Your task to perform on an android device: toggle javascript in the chrome app Image 0: 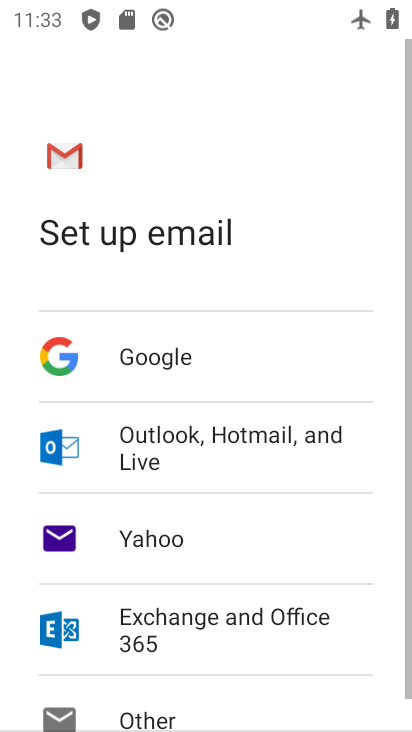
Step 0: press home button
Your task to perform on an android device: toggle javascript in the chrome app Image 1: 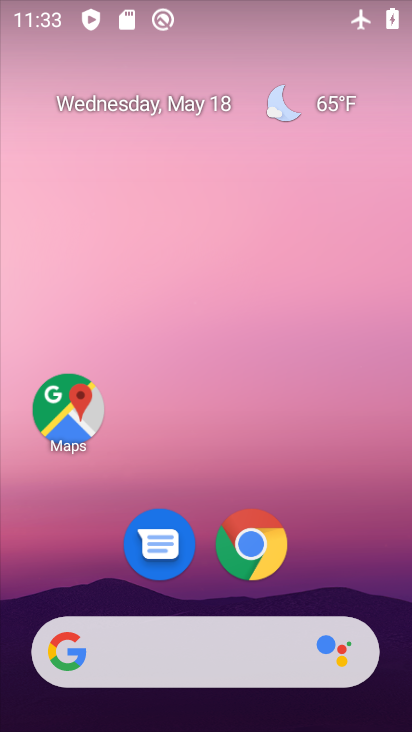
Step 1: drag from (378, 584) to (345, 60)
Your task to perform on an android device: toggle javascript in the chrome app Image 2: 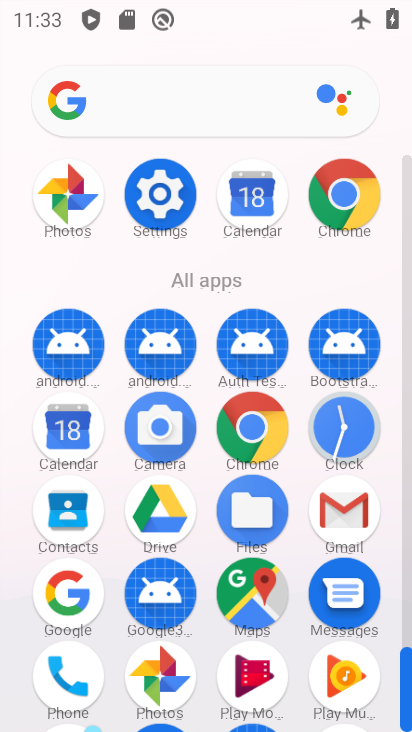
Step 2: click (273, 423)
Your task to perform on an android device: toggle javascript in the chrome app Image 3: 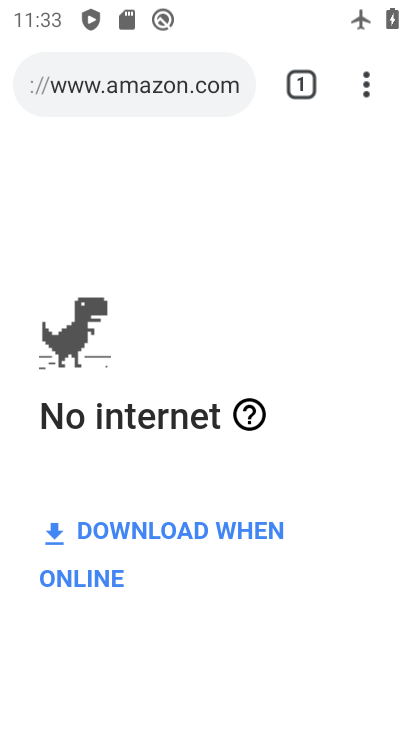
Step 3: click (364, 92)
Your task to perform on an android device: toggle javascript in the chrome app Image 4: 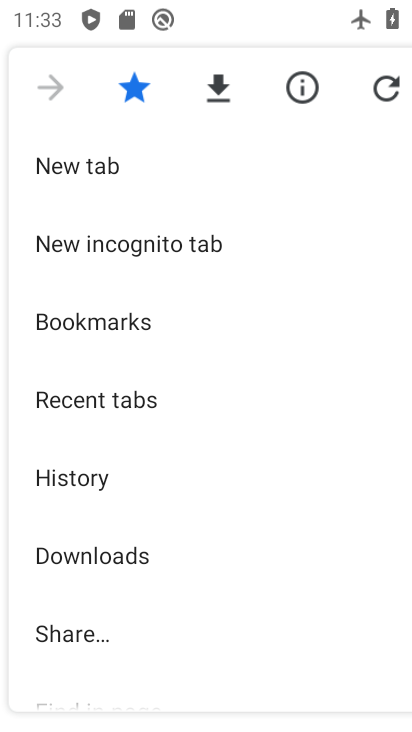
Step 4: drag from (304, 518) to (292, 355)
Your task to perform on an android device: toggle javascript in the chrome app Image 5: 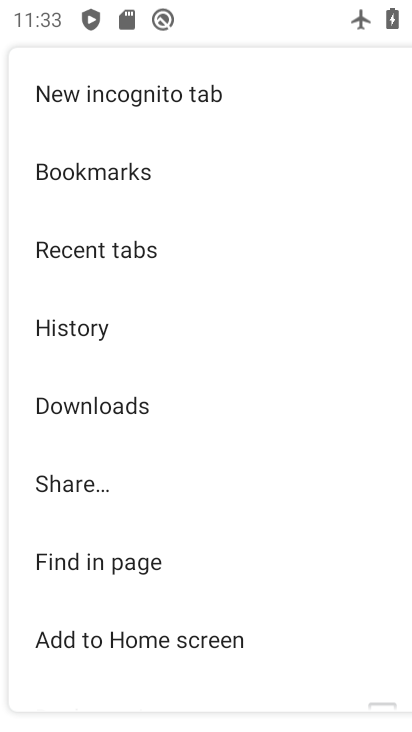
Step 5: drag from (263, 564) to (296, 289)
Your task to perform on an android device: toggle javascript in the chrome app Image 6: 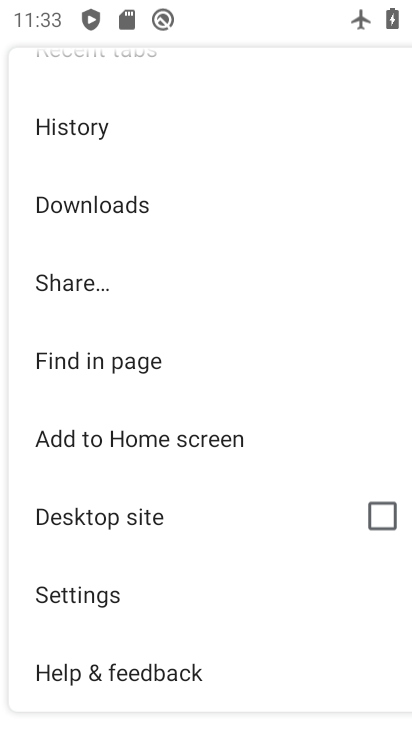
Step 6: click (163, 597)
Your task to perform on an android device: toggle javascript in the chrome app Image 7: 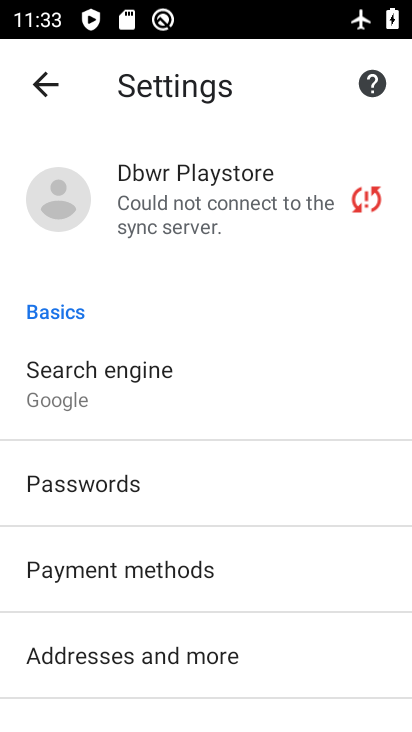
Step 7: drag from (255, 617) to (287, 439)
Your task to perform on an android device: toggle javascript in the chrome app Image 8: 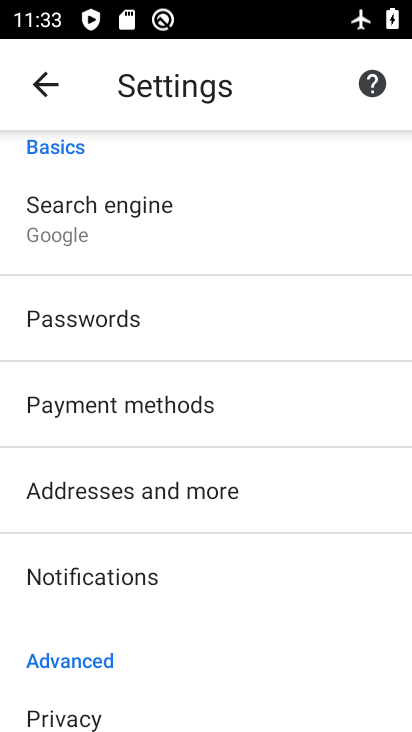
Step 8: drag from (304, 621) to (408, 367)
Your task to perform on an android device: toggle javascript in the chrome app Image 9: 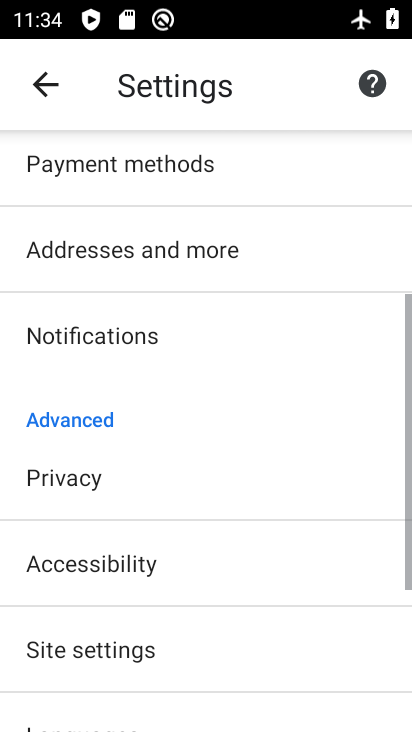
Step 9: drag from (309, 590) to (304, 376)
Your task to perform on an android device: toggle javascript in the chrome app Image 10: 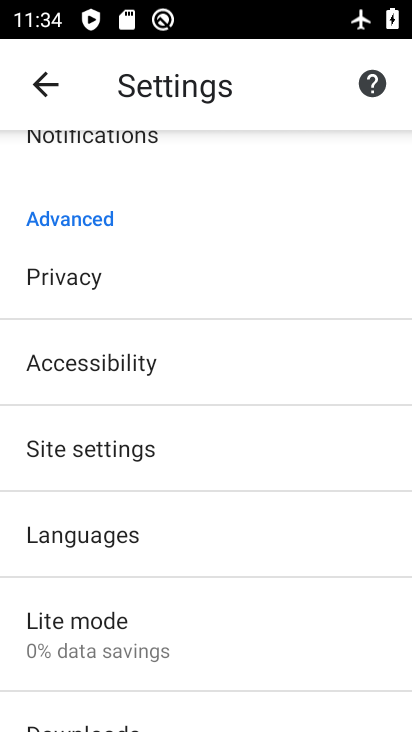
Step 10: click (201, 445)
Your task to perform on an android device: toggle javascript in the chrome app Image 11: 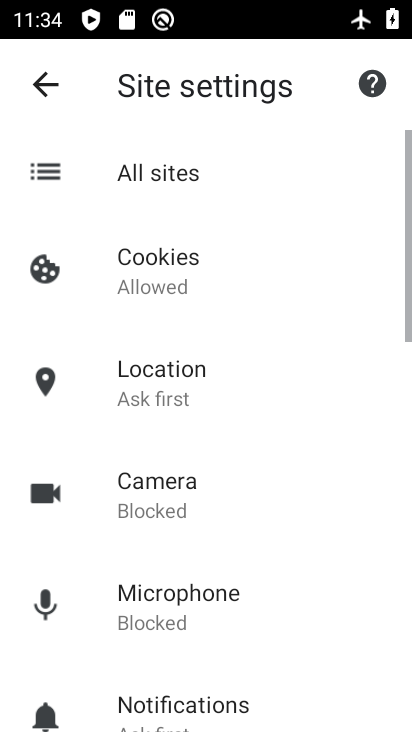
Step 11: drag from (263, 582) to (272, 395)
Your task to perform on an android device: toggle javascript in the chrome app Image 12: 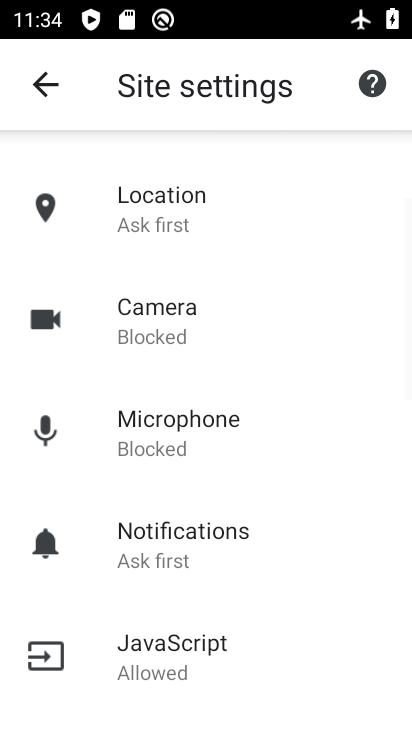
Step 12: click (223, 647)
Your task to perform on an android device: toggle javascript in the chrome app Image 13: 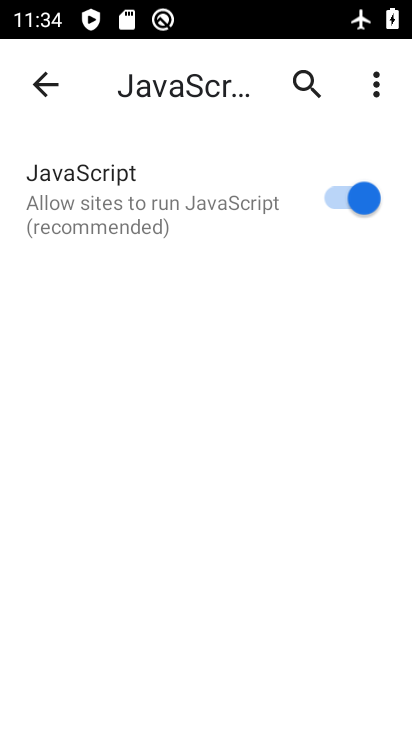
Step 13: click (346, 199)
Your task to perform on an android device: toggle javascript in the chrome app Image 14: 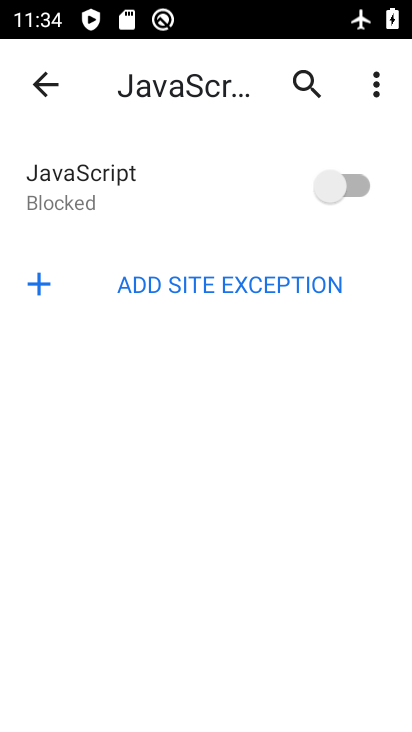
Step 14: task complete